Your task to perform on an android device: Show me popular games on the Play Store Image 0: 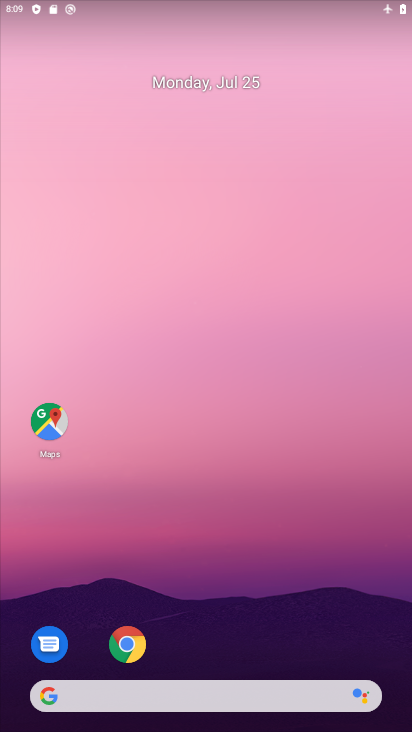
Step 0: drag from (237, 632) to (227, 167)
Your task to perform on an android device: Show me popular games on the Play Store Image 1: 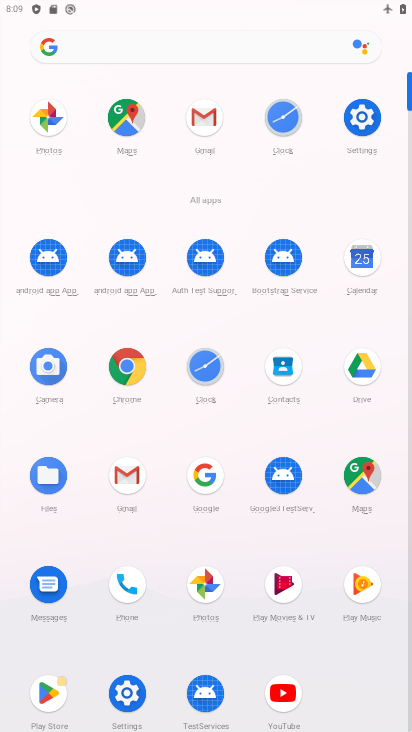
Step 1: click (45, 680)
Your task to perform on an android device: Show me popular games on the Play Store Image 2: 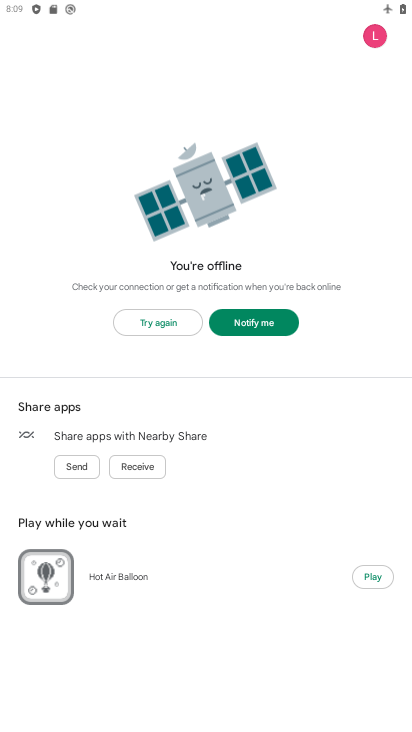
Step 2: task complete